Your task to perform on an android device: Go to Yahoo.com Image 0: 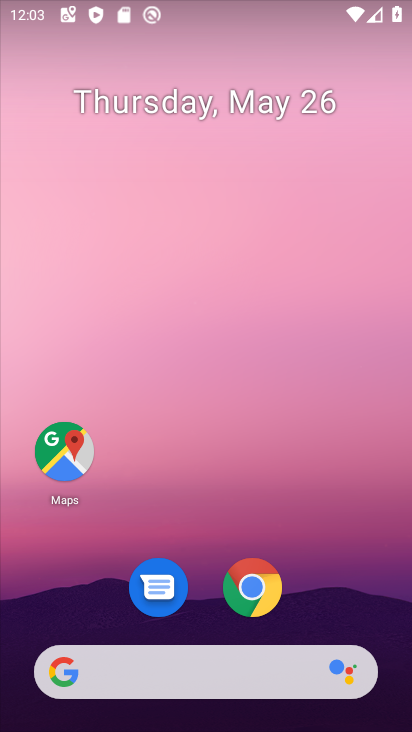
Step 0: click (251, 577)
Your task to perform on an android device: Go to Yahoo.com Image 1: 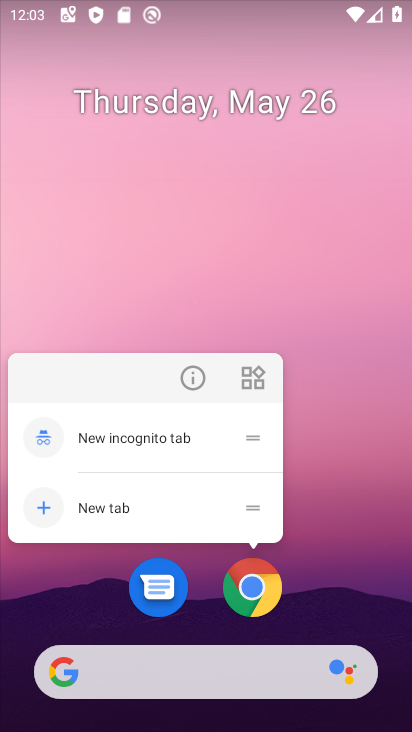
Step 1: click (249, 579)
Your task to perform on an android device: Go to Yahoo.com Image 2: 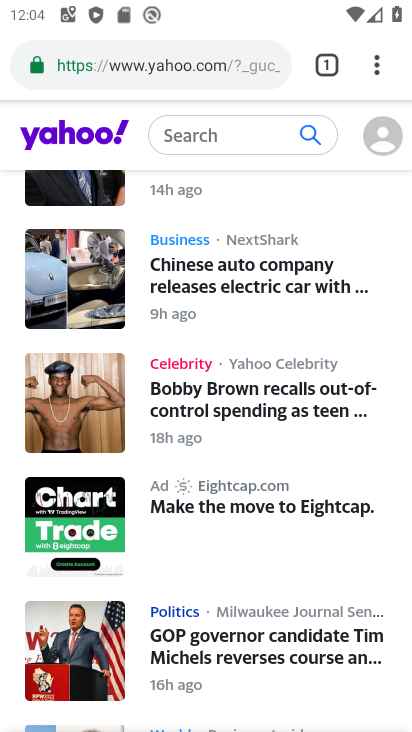
Step 2: task complete